Your task to perform on an android device: Go to network settings Image 0: 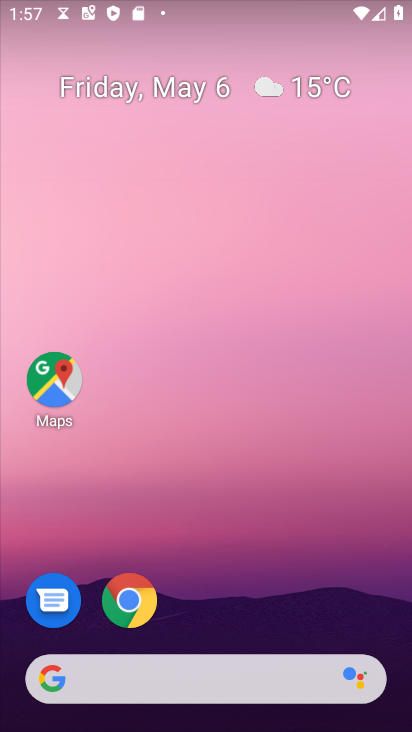
Step 0: drag from (269, 520) to (224, 15)
Your task to perform on an android device: Go to network settings Image 1: 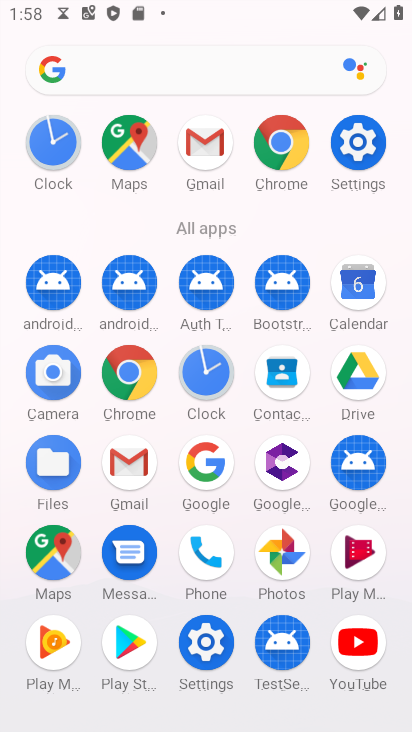
Step 1: drag from (1, 553) to (15, 299)
Your task to perform on an android device: Go to network settings Image 2: 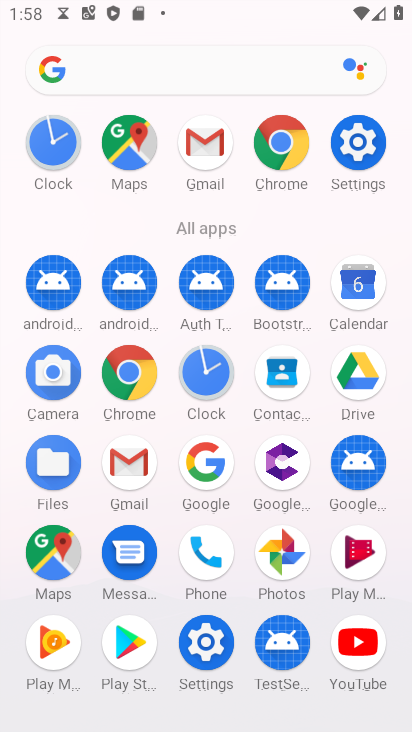
Step 2: click (206, 639)
Your task to perform on an android device: Go to network settings Image 3: 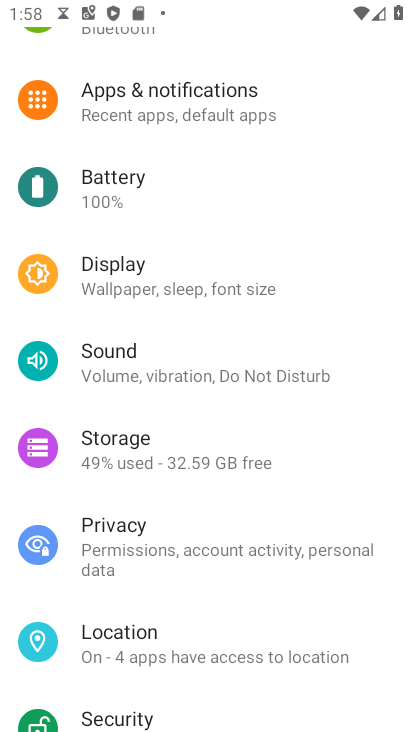
Step 3: drag from (243, 156) to (274, 636)
Your task to perform on an android device: Go to network settings Image 4: 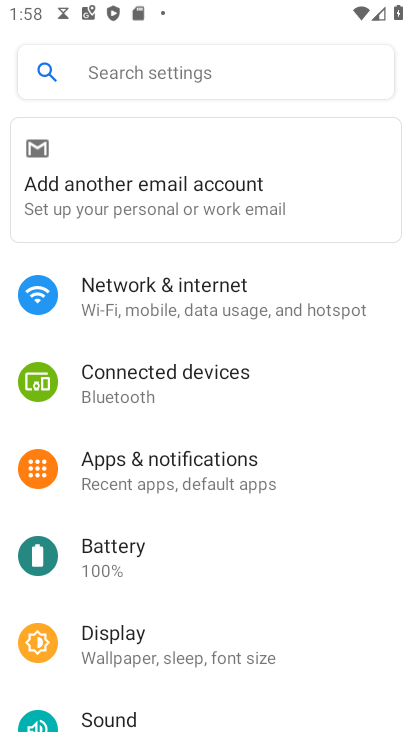
Step 4: click (173, 279)
Your task to perform on an android device: Go to network settings Image 5: 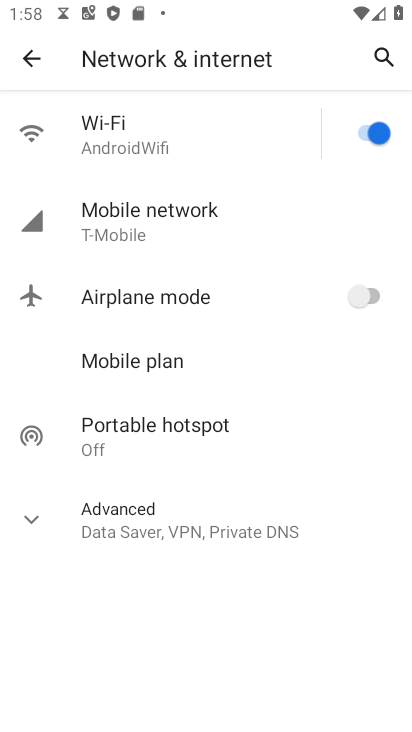
Step 5: click (165, 230)
Your task to perform on an android device: Go to network settings Image 6: 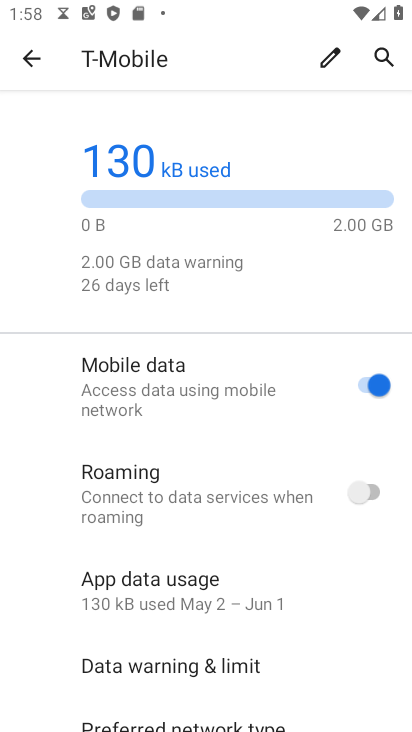
Step 6: click (39, 51)
Your task to perform on an android device: Go to network settings Image 7: 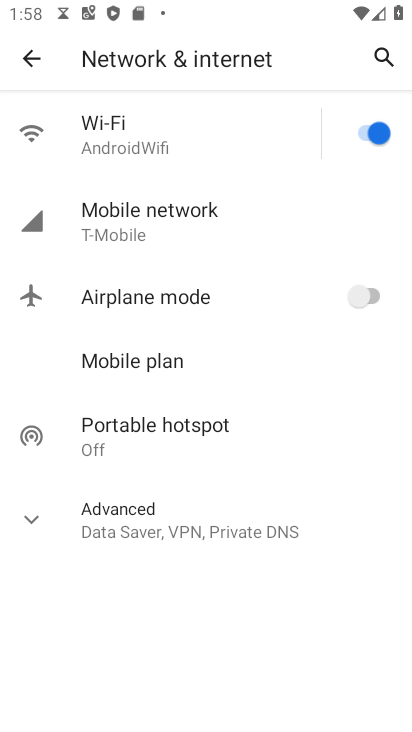
Step 7: task complete